Your task to perform on an android device: What is the news today? Image 0: 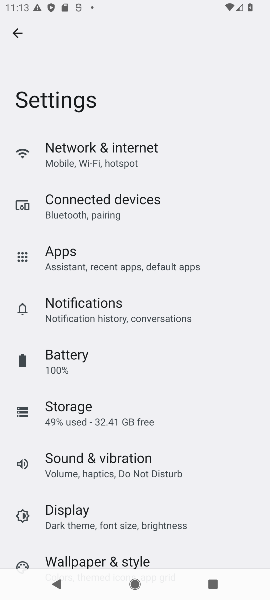
Step 0: press home button
Your task to perform on an android device: What is the news today? Image 1: 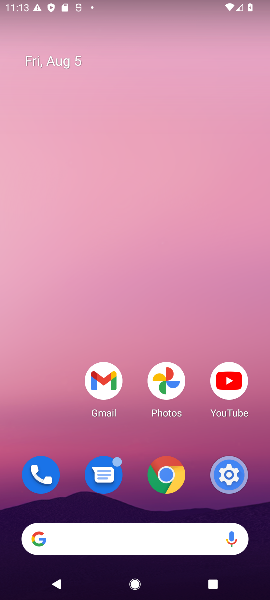
Step 1: click (132, 542)
Your task to perform on an android device: What is the news today? Image 2: 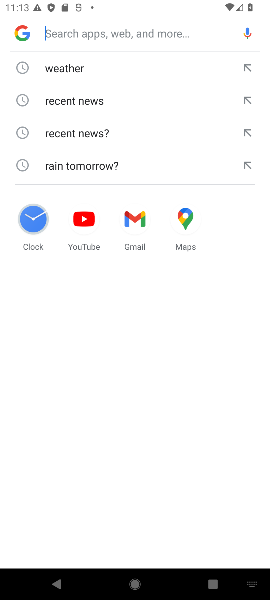
Step 2: type "news today ?"
Your task to perform on an android device: What is the news today? Image 3: 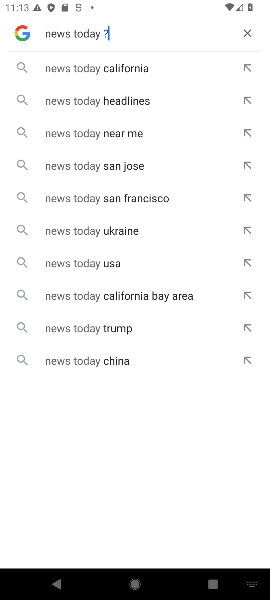
Step 3: click (76, 132)
Your task to perform on an android device: What is the news today? Image 4: 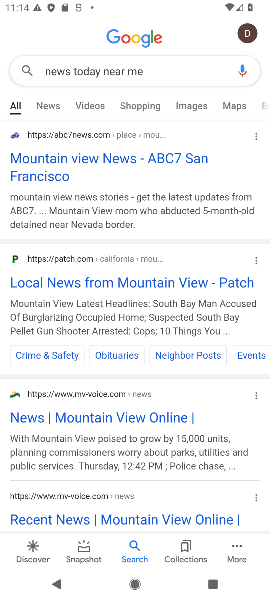
Step 4: task complete